Your task to perform on an android device: Go to Google maps Image 0: 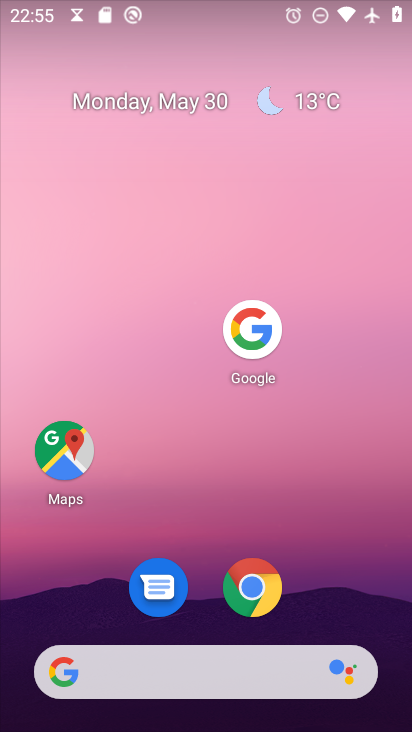
Step 0: press home button
Your task to perform on an android device: Go to Google maps Image 1: 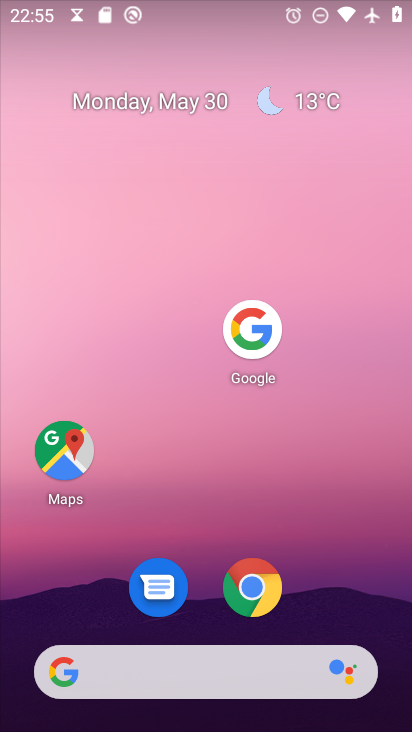
Step 1: click (67, 450)
Your task to perform on an android device: Go to Google maps Image 2: 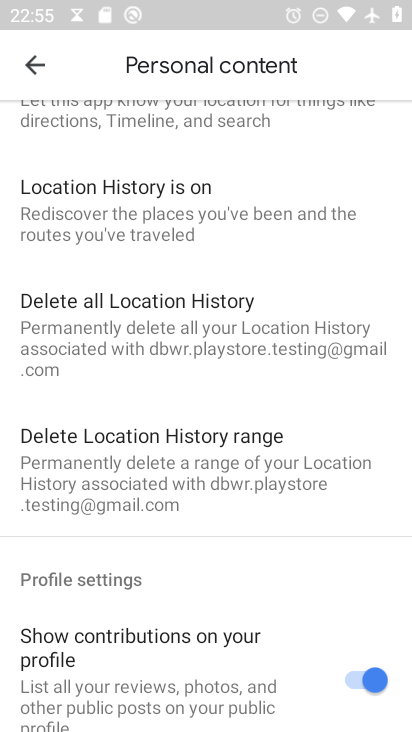
Step 2: click (45, 61)
Your task to perform on an android device: Go to Google maps Image 3: 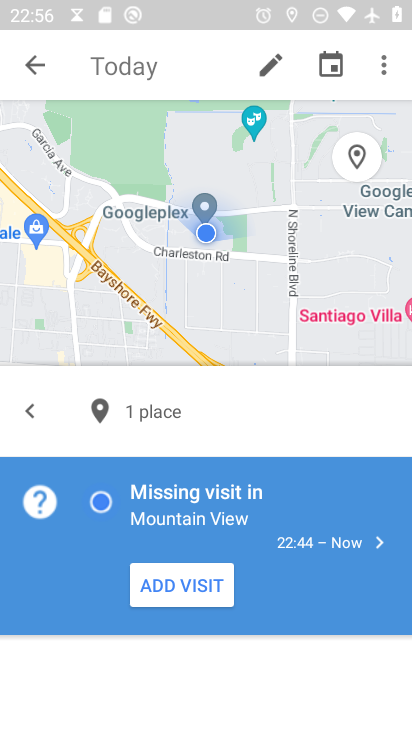
Step 3: task complete